Your task to perform on an android device: What's the weather like in New York? Image 0: 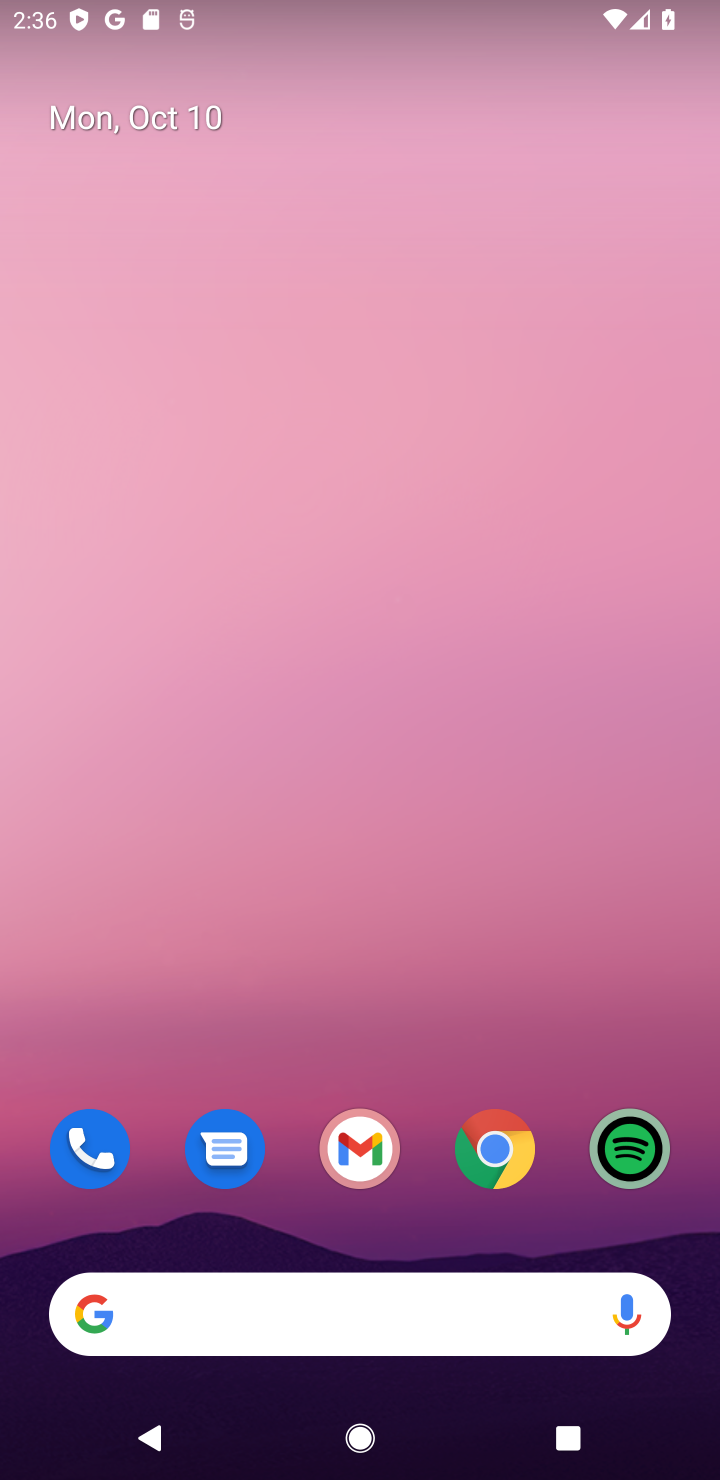
Step 0: drag from (544, 1468) to (411, 1420)
Your task to perform on an android device: What's the weather like in New York? Image 1: 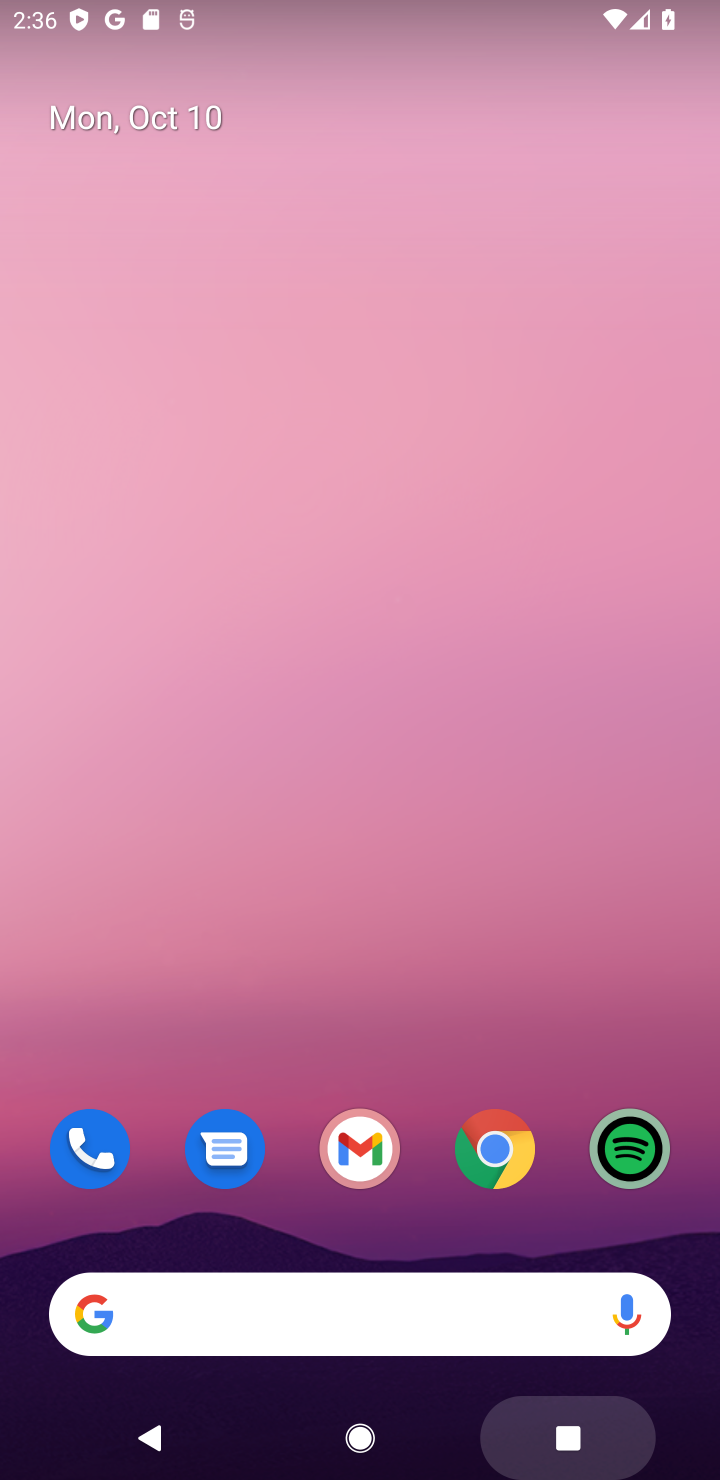
Step 1: click (285, 1292)
Your task to perform on an android device: What's the weather like in New York? Image 2: 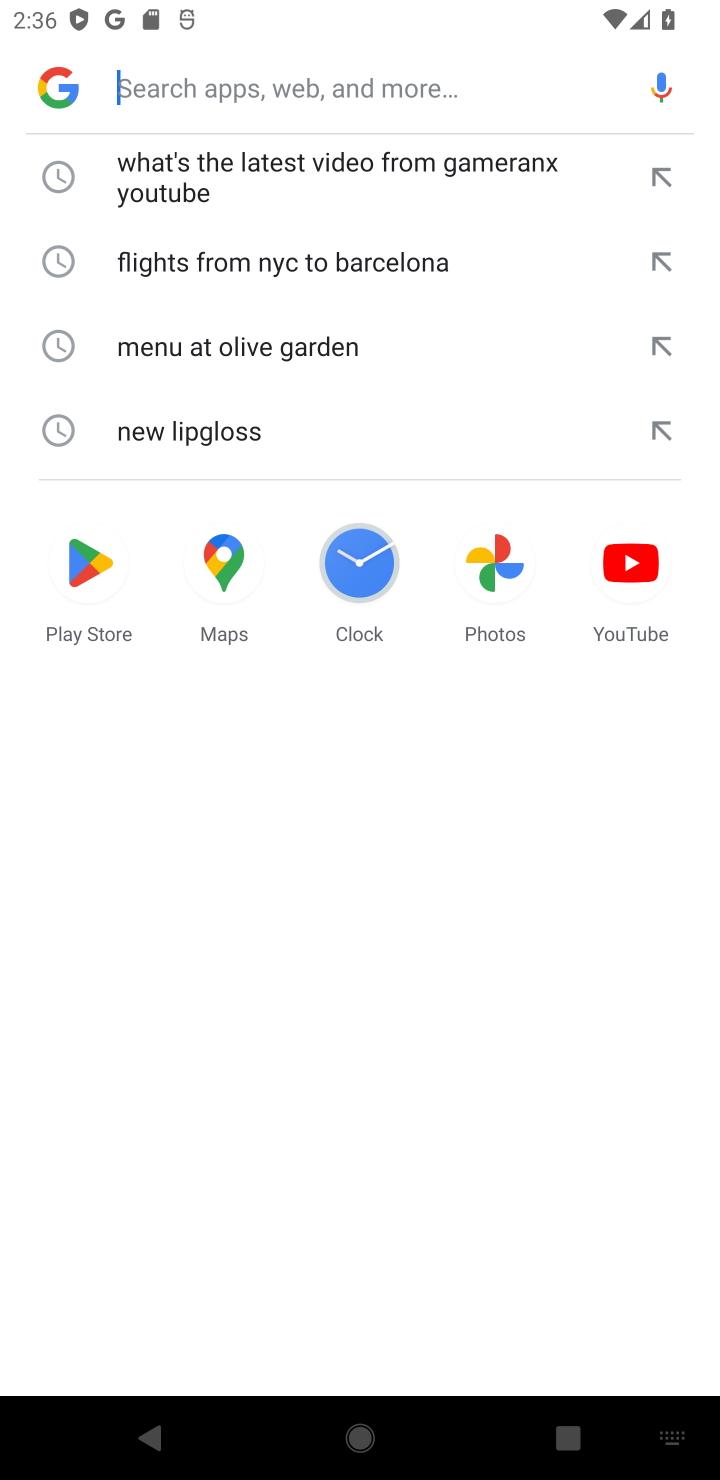
Step 2: type "What's the weather like in New York?"
Your task to perform on an android device: What's the weather like in New York? Image 3: 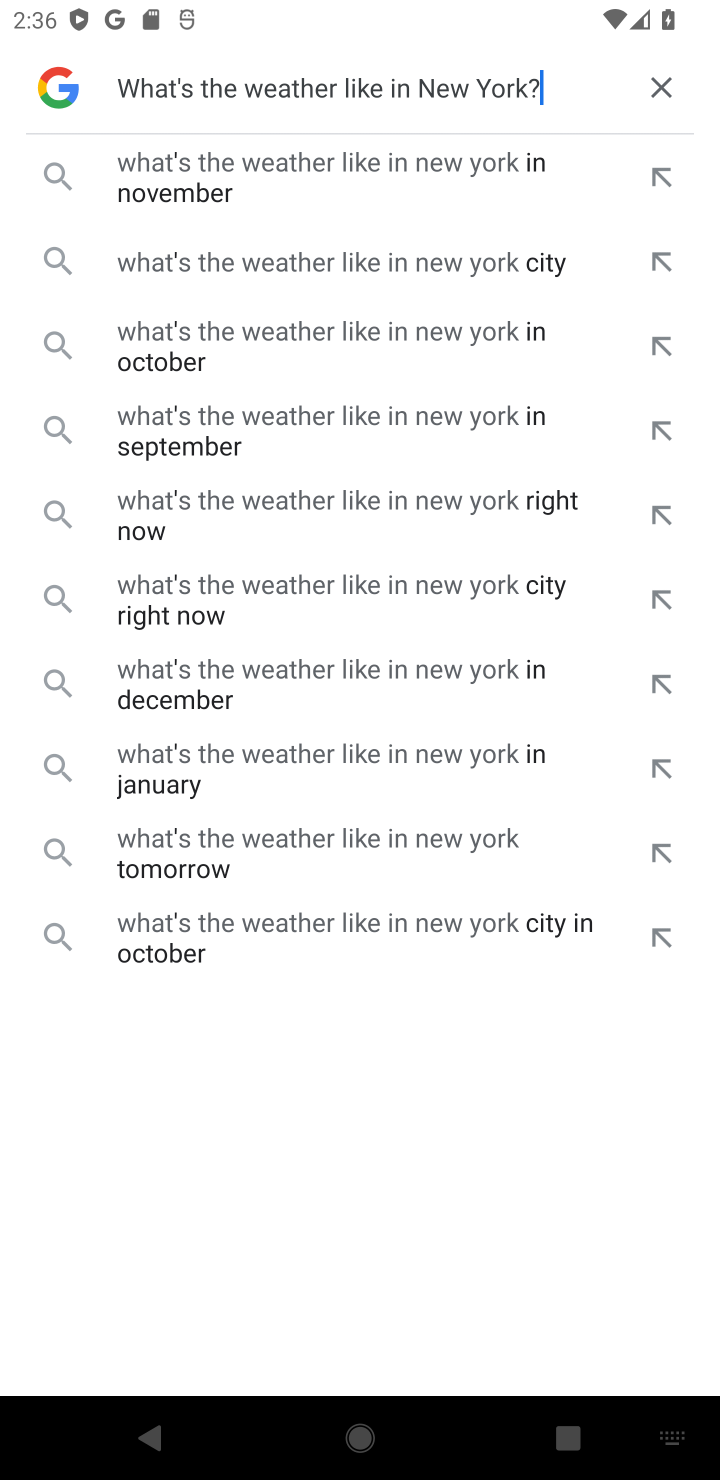
Step 3: click (177, 206)
Your task to perform on an android device: What's the weather like in New York? Image 4: 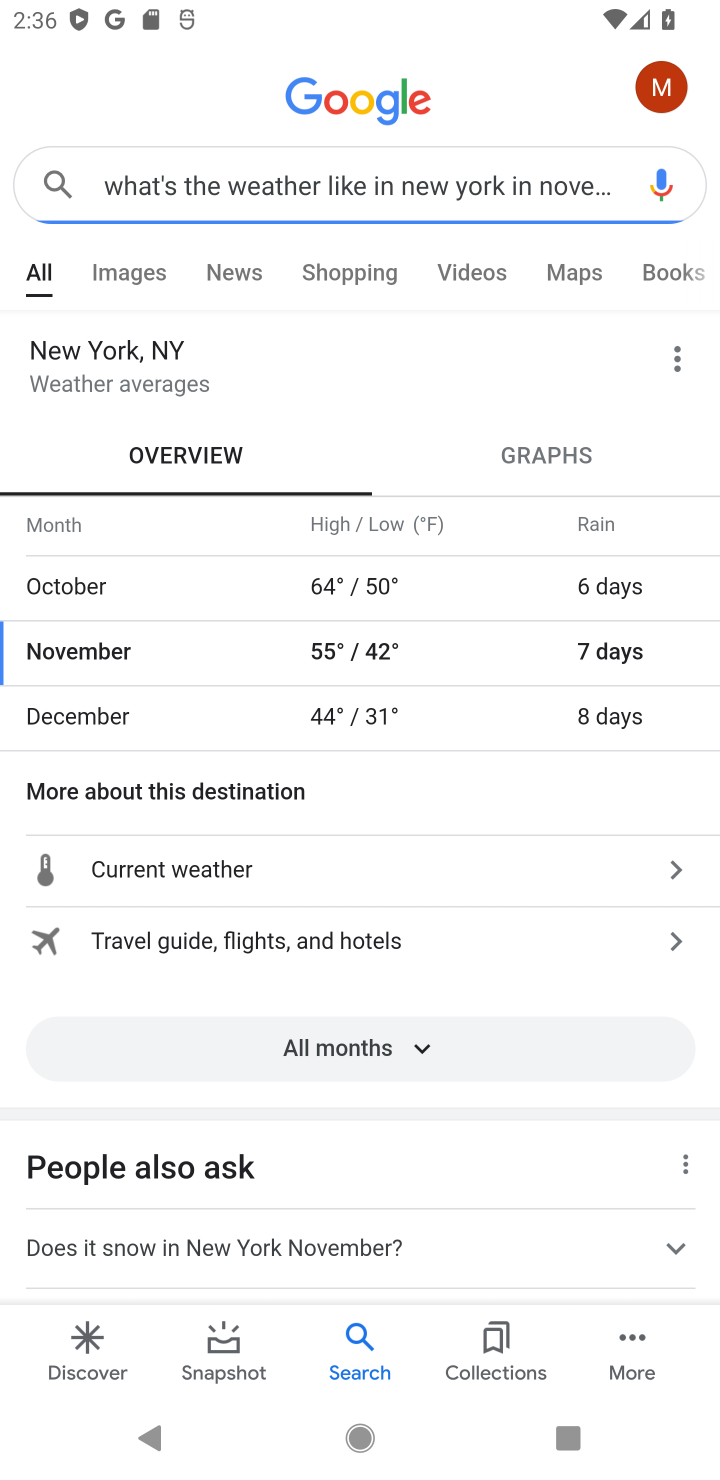
Step 4: task complete